Your task to perform on an android device: turn off location history Image 0: 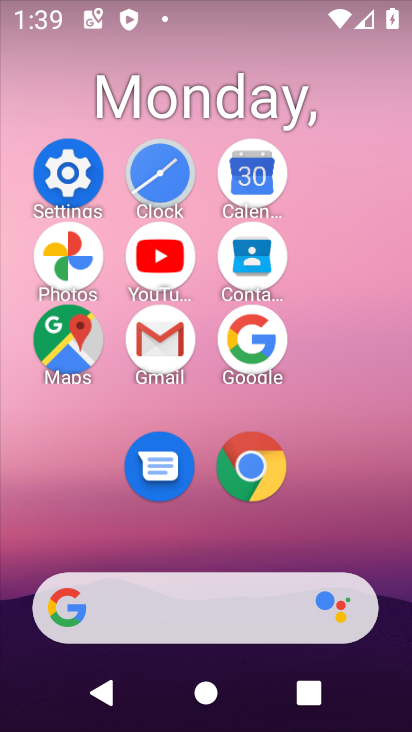
Step 0: click (56, 182)
Your task to perform on an android device: turn off location history Image 1: 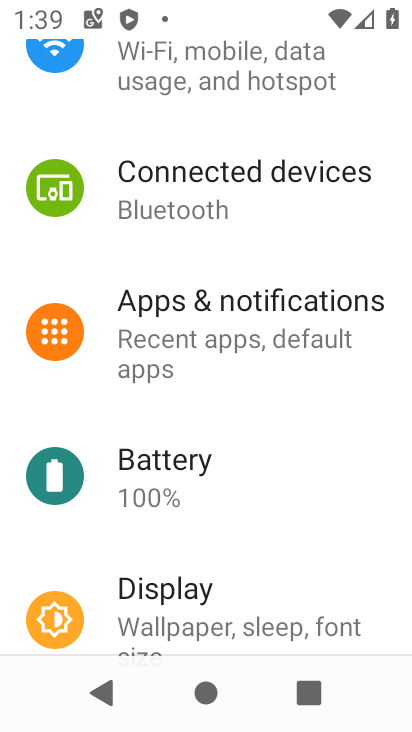
Step 1: drag from (279, 473) to (308, 207)
Your task to perform on an android device: turn off location history Image 2: 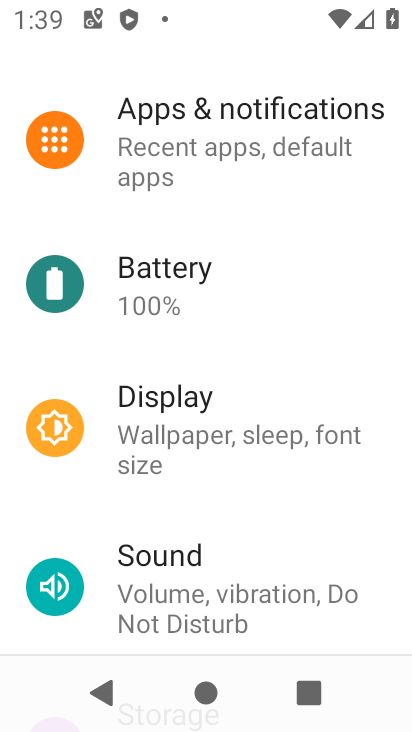
Step 2: drag from (309, 518) to (290, 250)
Your task to perform on an android device: turn off location history Image 3: 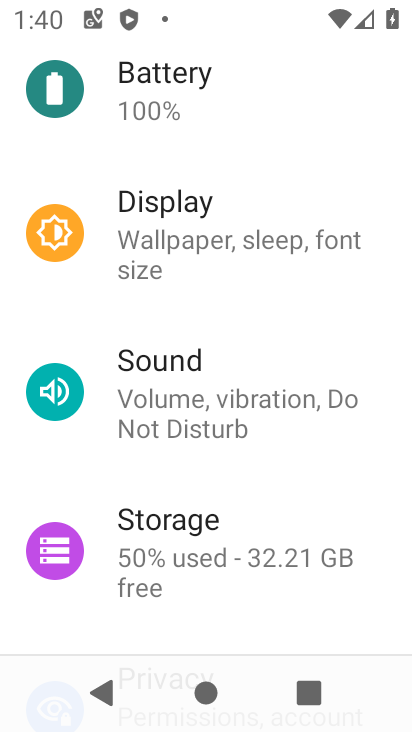
Step 3: drag from (282, 554) to (246, 183)
Your task to perform on an android device: turn off location history Image 4: 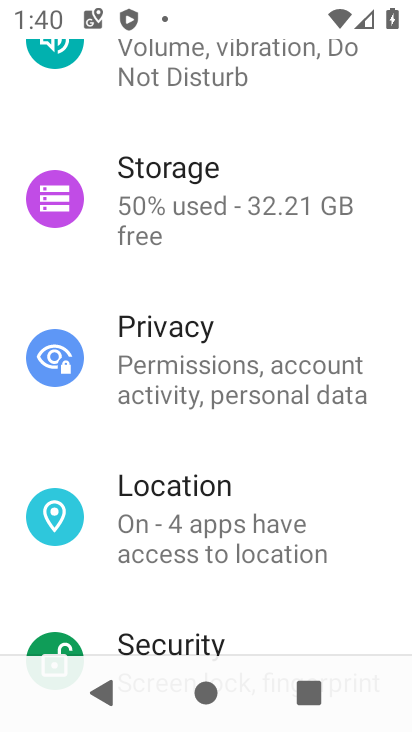
Step 4: click (235, 519)
Your task to perform on an android device: turn off location history Image 5: 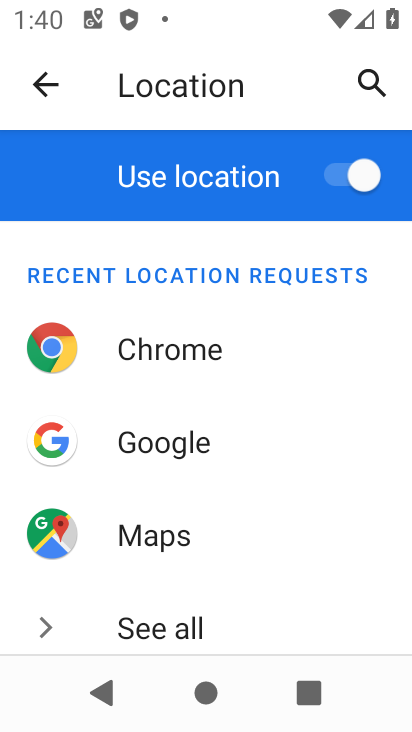
Step 5: drag from (278, 566) to (246, 212)
Your task to perform on an android device: turn off location history Image 6: 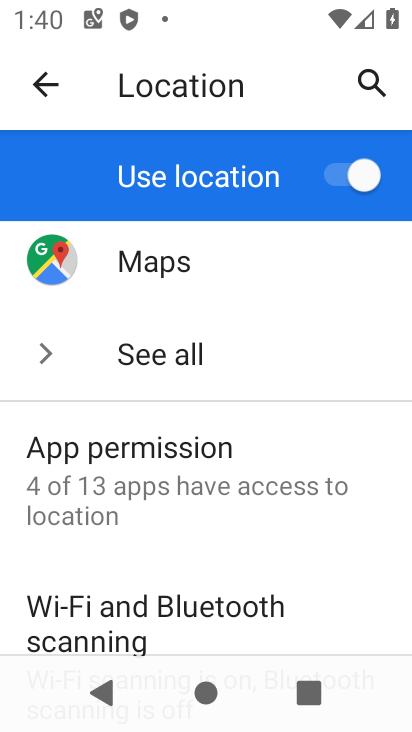
Step 6: drag from (276, 570) to (261, 173)
Your task to perform on an android device: turn off location history Image 7: 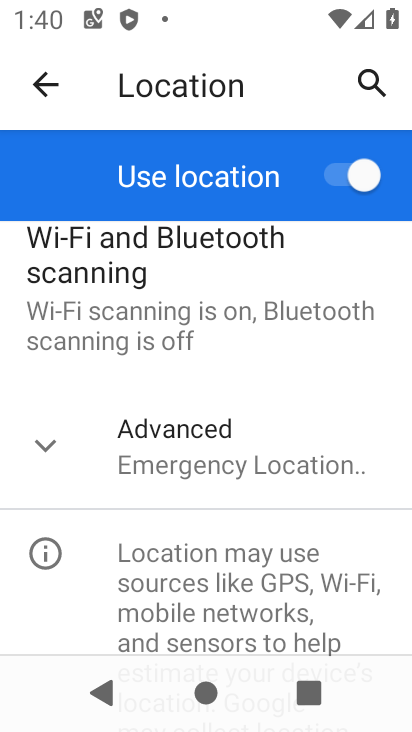
Step 7: click (183, 442)
Your task to perform on an android device: turn off location history Image 8: 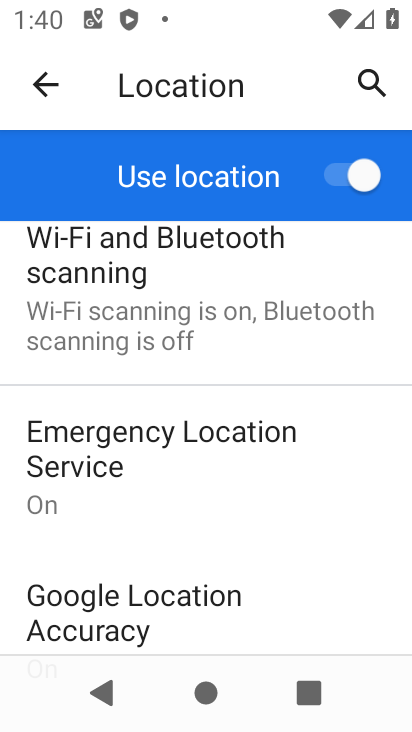
Step 8: drag from (264, 600) to (267, 241)
Your task to perform on an android device: turn off location history Image 9: 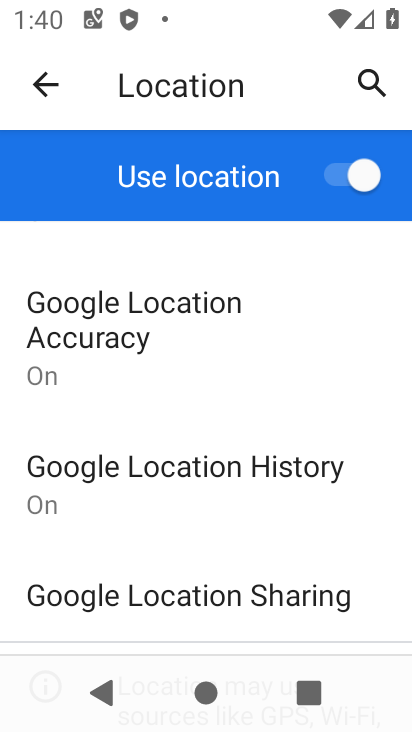
Step 9: click (249, 443)
Your task to perform on an android device: turn off location history Image 10: 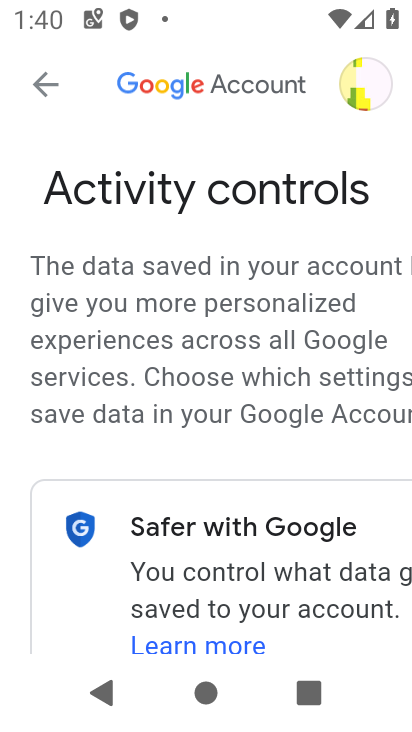
Step 10: drag from (219, 551) to (266, 84)
Your task to perform on an android device: turn off location history Image 11: 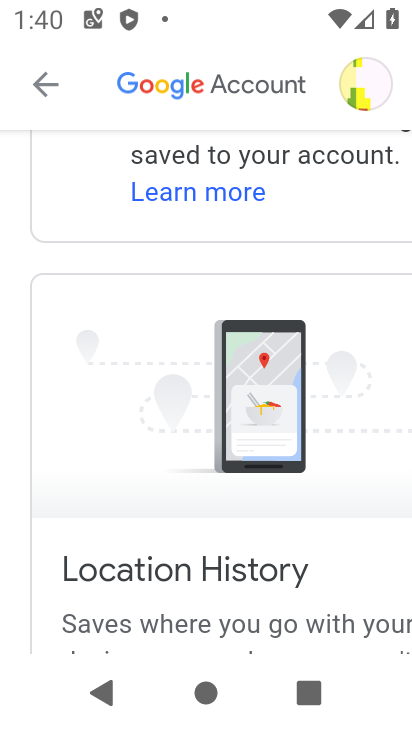
Step 11: drag from (318, 551) to (304, 108)
Your task to perform on an android device: turn off location history Image 12: 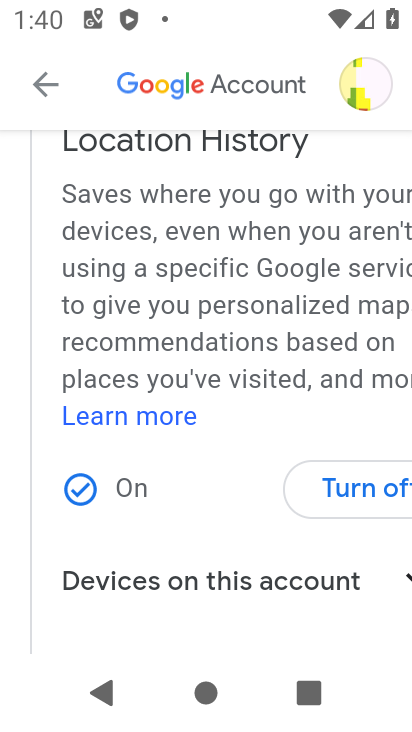
Step 12: click (338, 512)
Your task to perform on an android device: turn off location history Image 13: 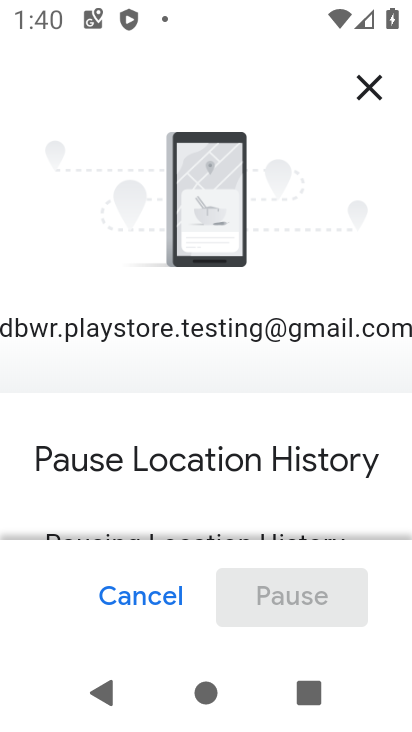
Step 13: drag from (343, 516) to (325, 7)
Your task to perform on an android device: turn off location history Image 14: 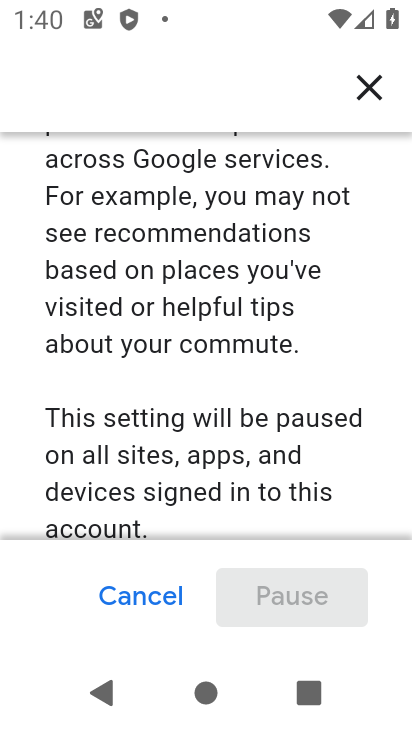
Step 14: drag from (255, 520) to (321, 101)
Your task to perform on an android device: turn off location history Image 15: 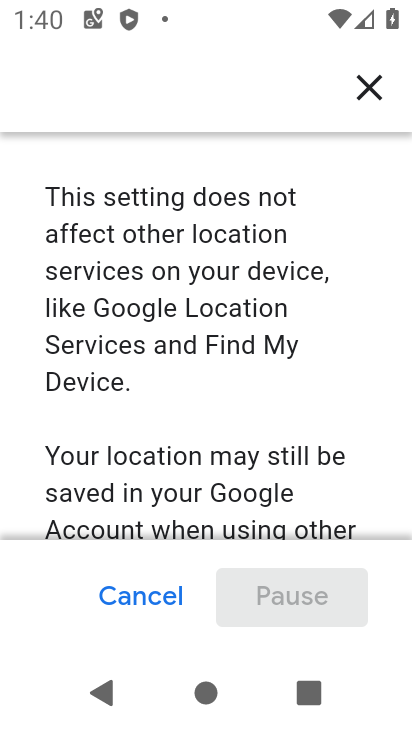
Step 15: drag from (350, 528) to (298, 18)
Your task to perform on an android device: turn off location history Image 16: 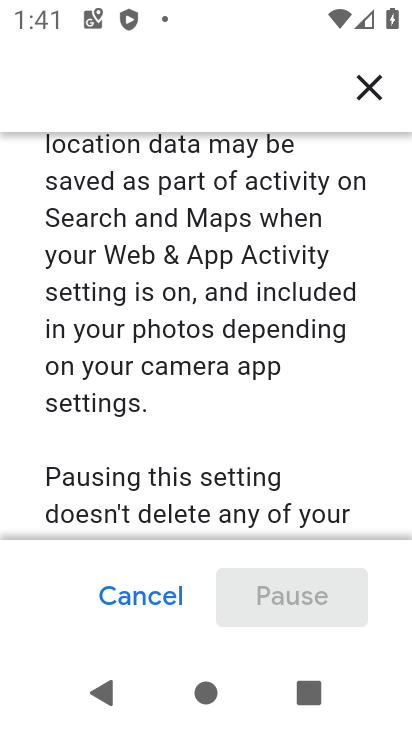
Step 16: drag from (244, 330) to (241, 0)
Your task to perform on an android device: turn off location history Image 17: 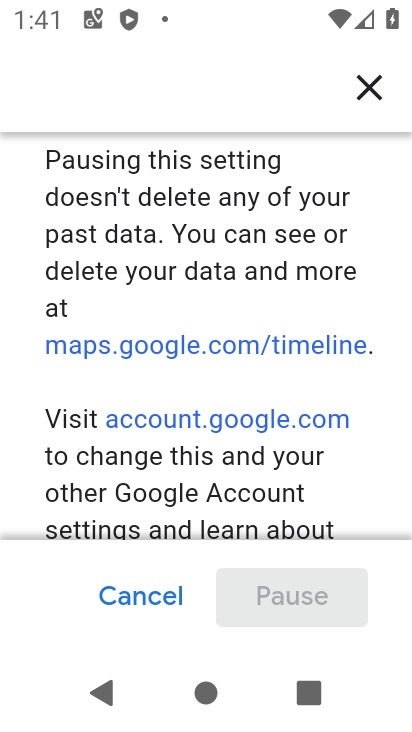
Step 17: drag from (241, 463) to (244, 95)
Your task to perform on an android device: turn off location history Image 18: 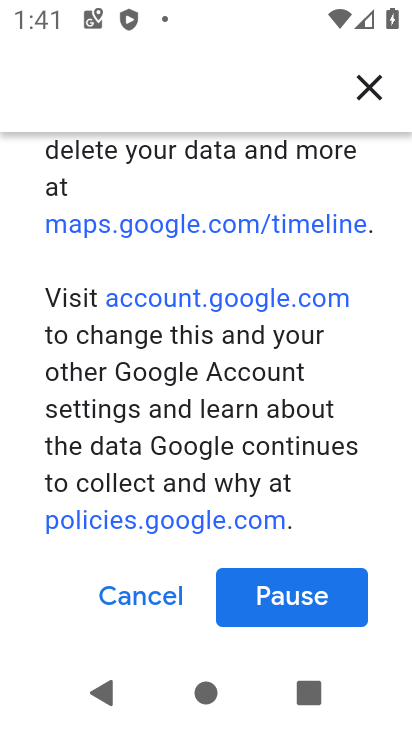
Step 18: click (286, 613)
Your task to perform on an android device: turn off location history Image 19: 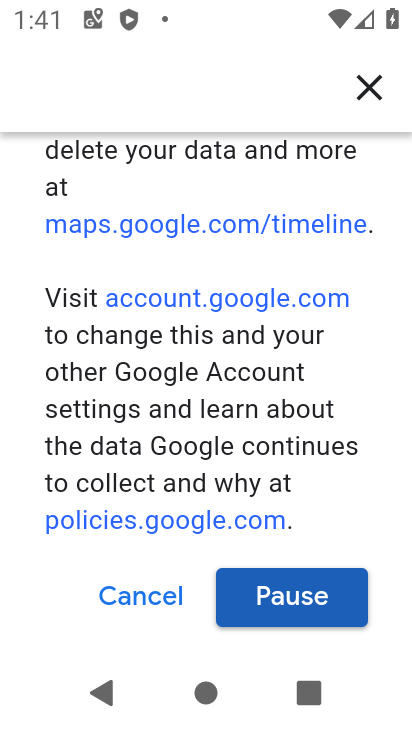
Step 19: click (340, 603)
Your task to perform on an android device: turn off location history Image 20: 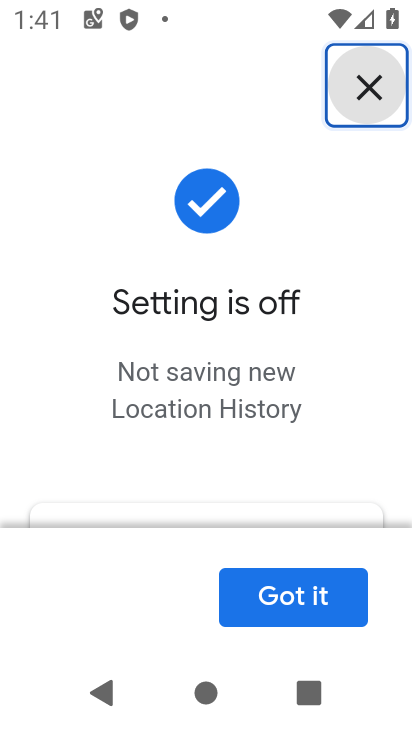
Step 20: click (273, 585)
Your task to perform on an android device: turn off location history Image 21: 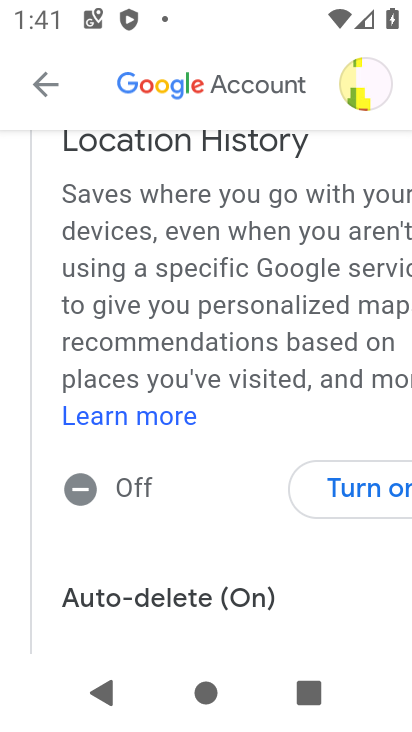
Step 21: task complete